Your task to perform on an android device: Open the calendar and show me this week's events Image 0: 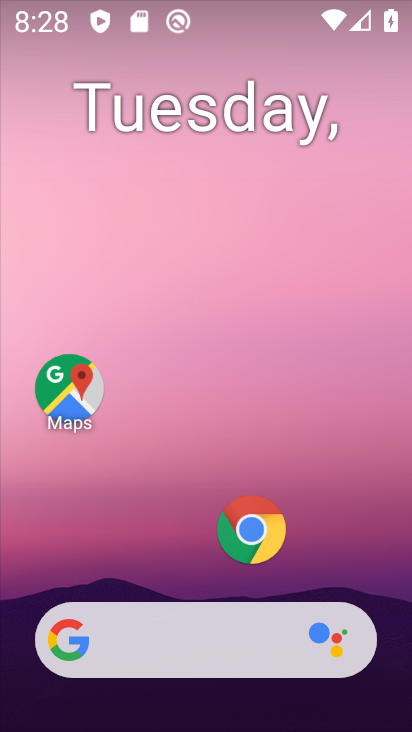
Step 0: press home button
Your task to perform on an android device: Open the calendar and show me this week's events Image 1: 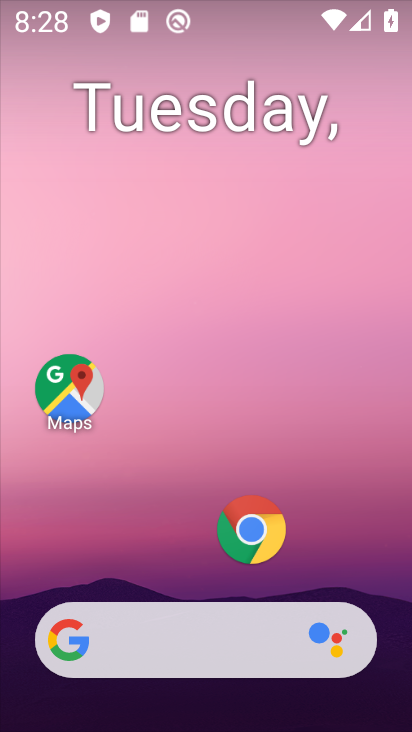
Step 1: drag from (193, 579) to (246, 18)
Your task to perform on an android device: Open the calendar and show me this week's events Image 2: 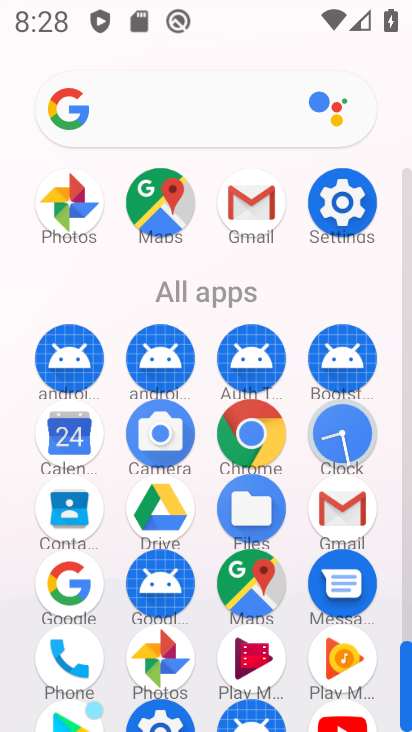
Step 2: click (65, 436)
Your task to perform on an android device: Open the calendar and show me this week's events Image 3: 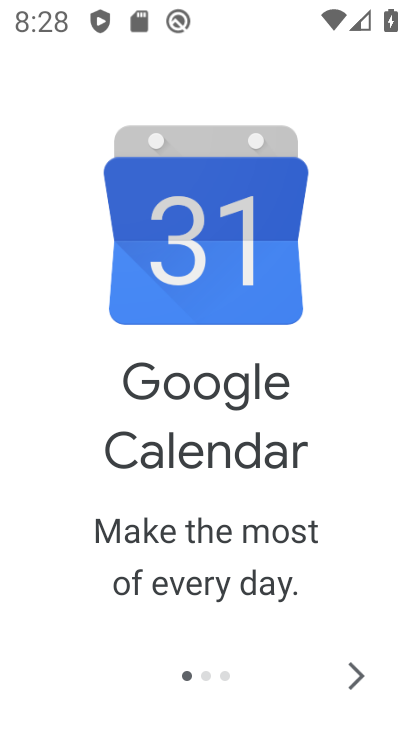
Step 3: click (362, 662)
Your task to perform on an android device: Open the calendar and show me this week's events Image 4: 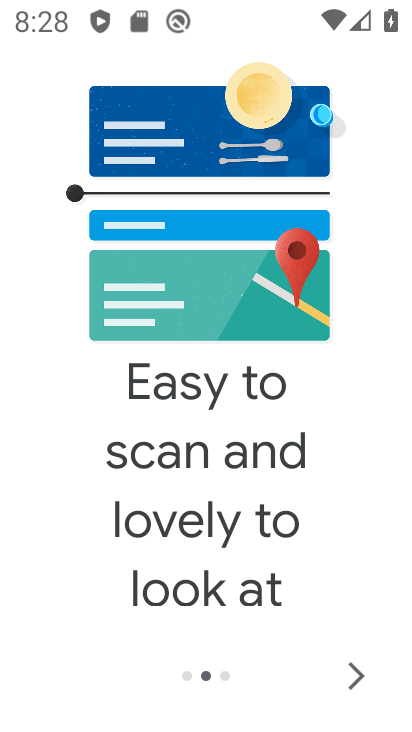
Step 4: click (349, 668)
Your task to perform on an android device: Open the calendar and show me this week's events Image 5: 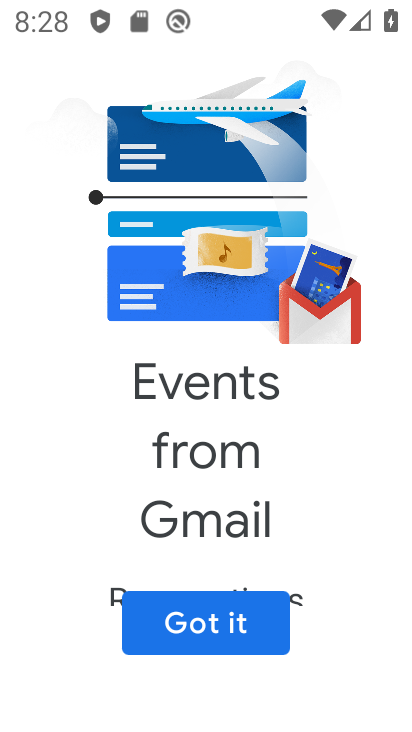
Step 5: click (219, 638)
Your task to perform on an android device: Open the calendar and show me this week's events Image 6: 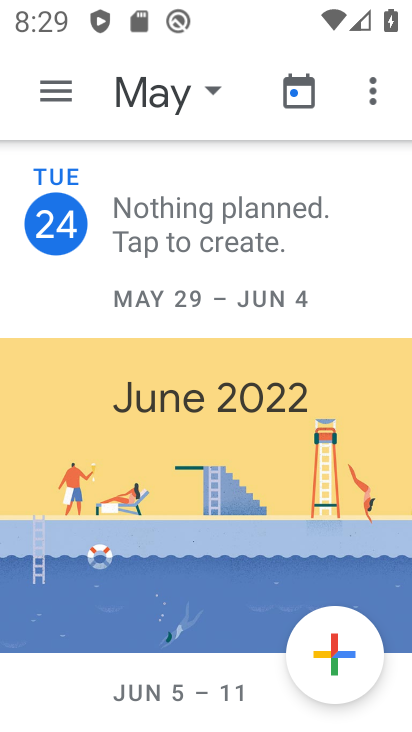
Step 6: click (60, 84)
Your task to perform on an android device: Open the calendar and show me this week's events Image 7: 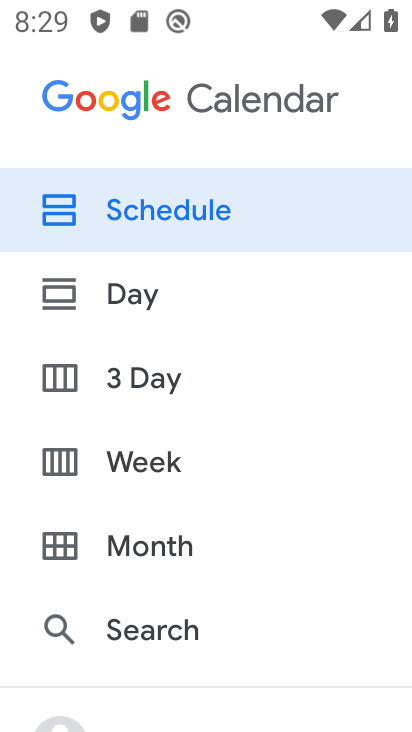
Step 7: click (86, 457)
Your task to perform on an android device: Open the calendar and show me this week's events Image 8: 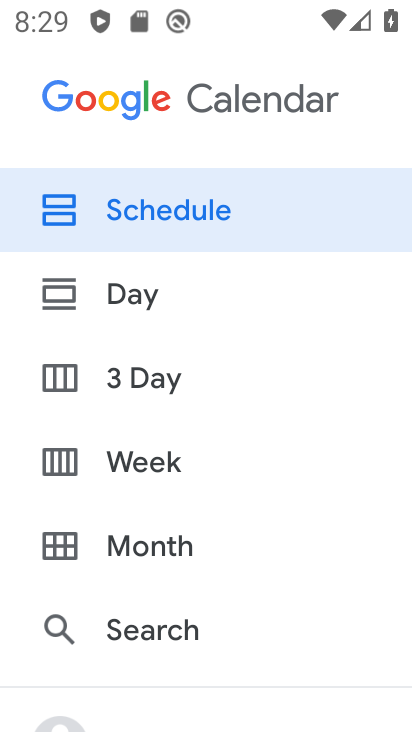
Step 8: click (96, 470)
Your task to perform on an android device: Open the calendar and show me this week's events Image 9: 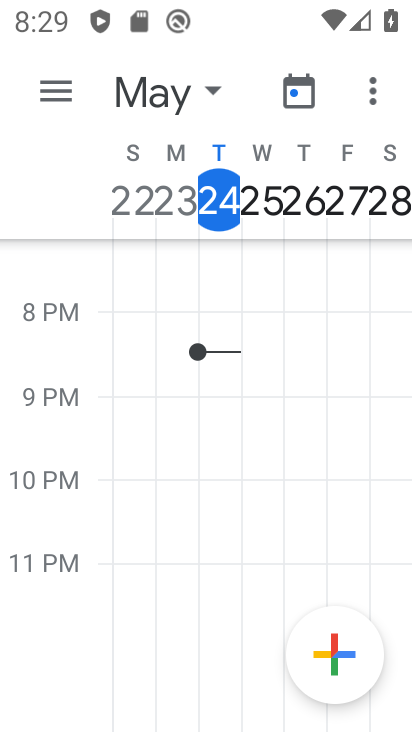
Step 9: click (229, 222)
Your task to perform on an android device: Open the calendar and show me this week's events Image 10: 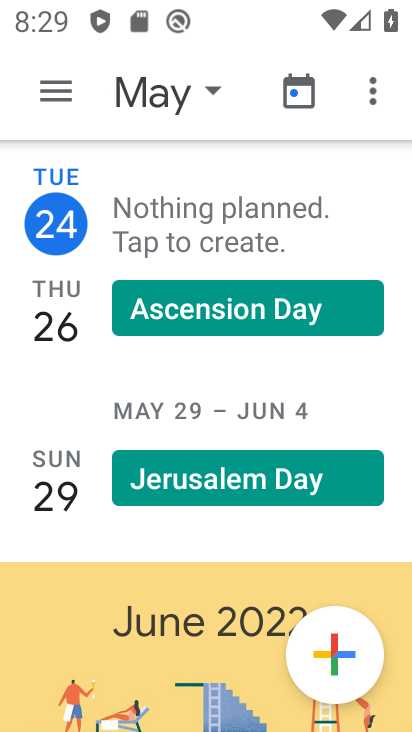
Step 10: drag from (70, 328) to (68, 392)
Your task to perform on an android device: Open the calendar and show me this week's events Image 11: 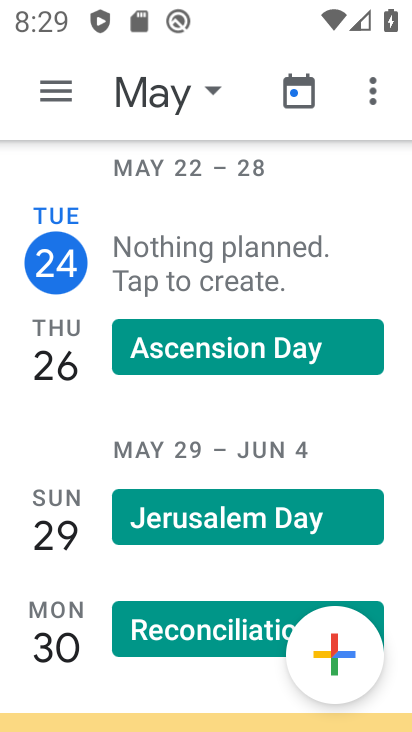
Step 11: click (60, 81)
Your task to perform on an android device: Open the calendar and show me this week's events Image 12: 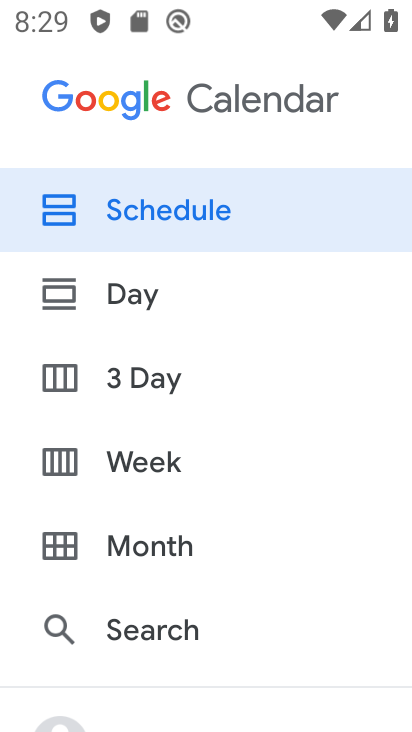
Step 12: drag from (101, 568) to (140, 120)
Your task to perform on an android device: Open the calendar and show me this week's events Image 13: 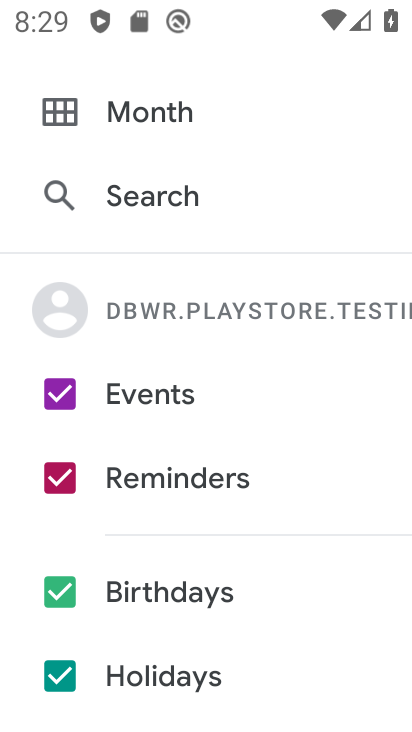
Step 13: click (50, 485)
Your task to perform on an android device: Open the calendar and show me this week's events Image 14: 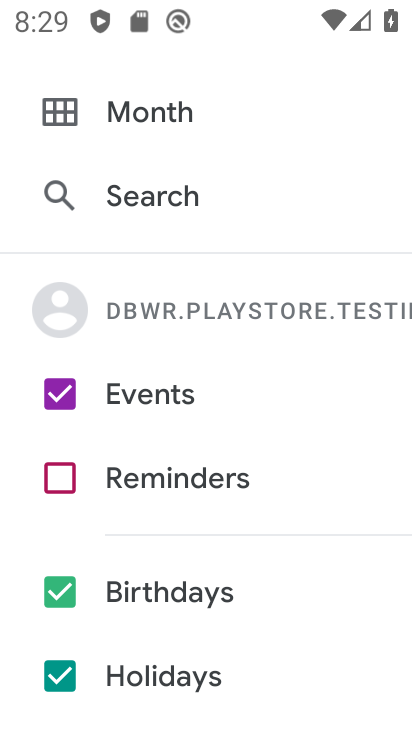
Step 14: click (67, 599)
Your task to perform on an android device: Open the calendar and show me this week's events Image 15: 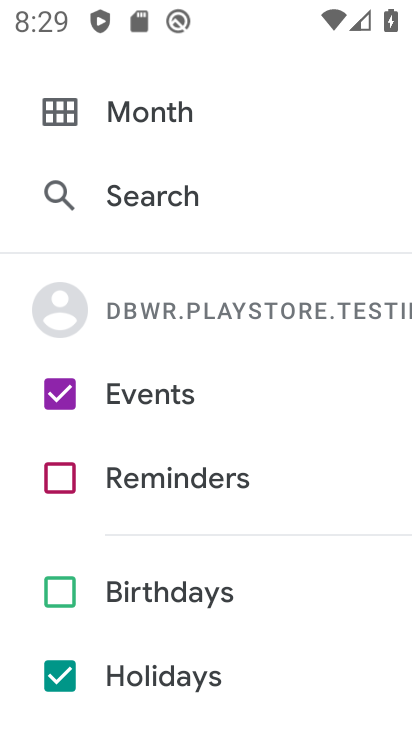
Step 15: click (69, 674)
Your task to perform on an android device: Open the calendar and show me this week's events Image 16: 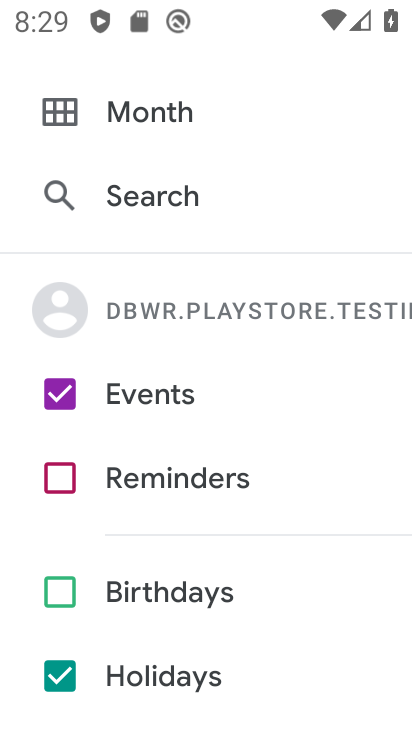
Step 16: click (59, 678)
Your task to perform on an android device: Open the calendar and show me this week's events Image 17: 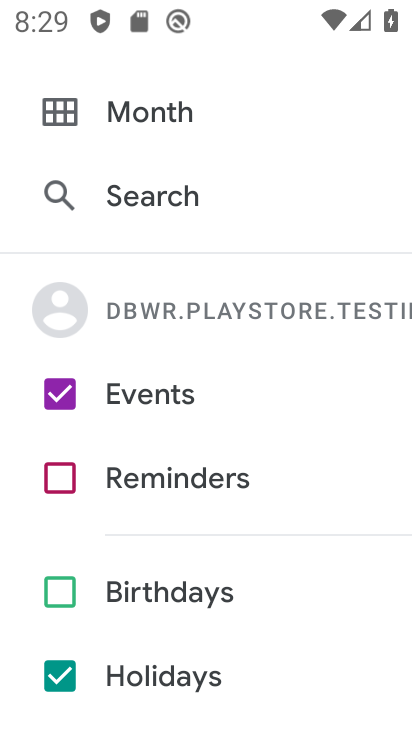
Step 17: click (54, 676)
Your task to perform on an android device: Open the calendar and show me this week's events Image 18: 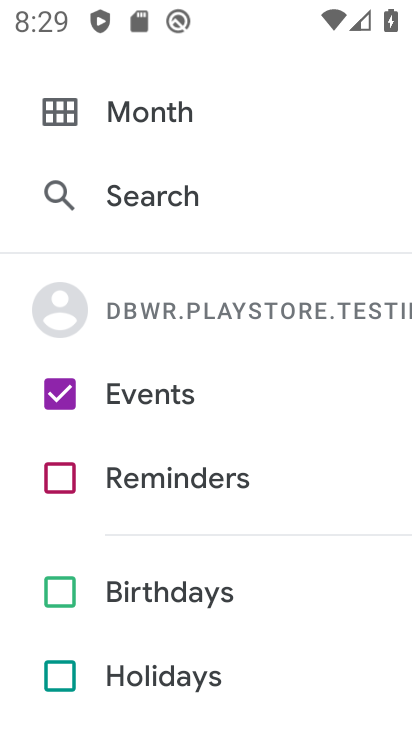
Step 18: drag from (127, 625) to (165, 720)
Your task to perform on an android device: Open the calendar and show me this week's events Image 19: 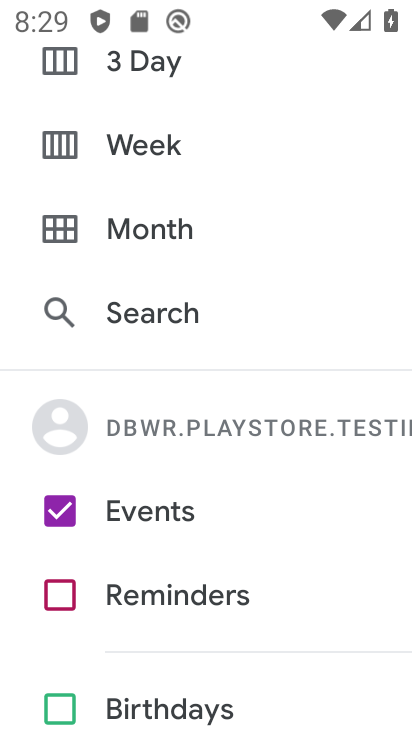
Step 19: drag from (157, 102) to (175, 592)
Your task to perform on an android device: Open the calendar and show me this week's events Image 20: 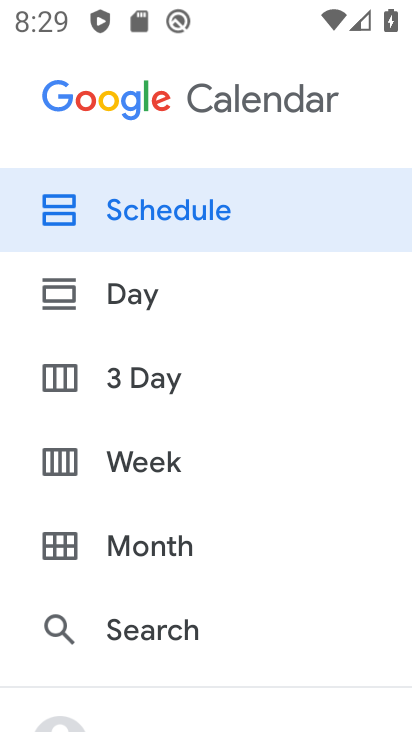
Step 20: click (88, 192)
Your task to perform on an android device: Open the calendar and show me this week's events Image 21: 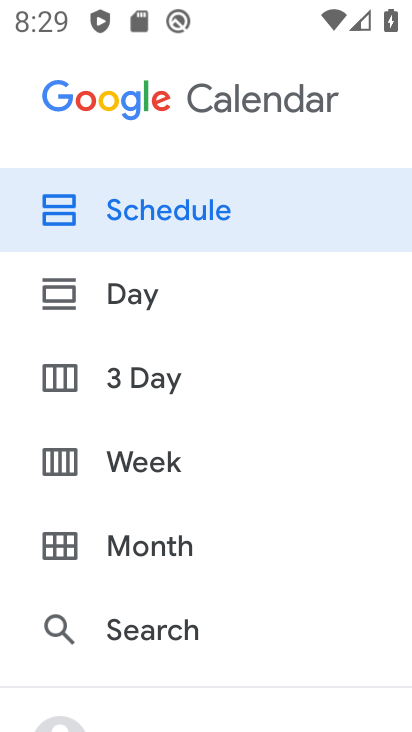
Step 21: click (188, 210)
Your task to perform on an android device: Open the calendar and show me this week's events Image 22: 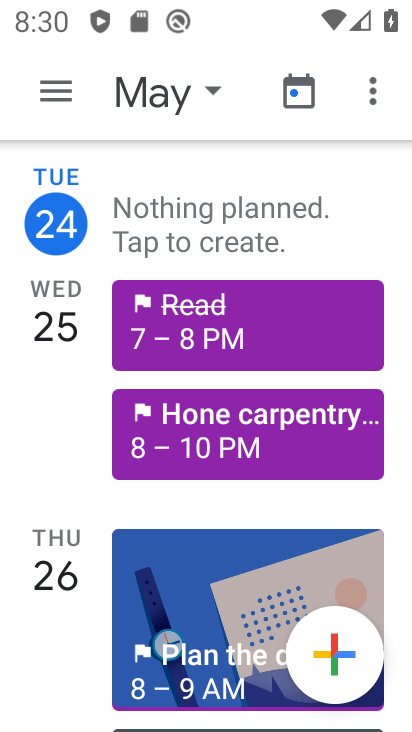
Step 22: task complete